Your task to perform on an android device: Go to settings Image 0: 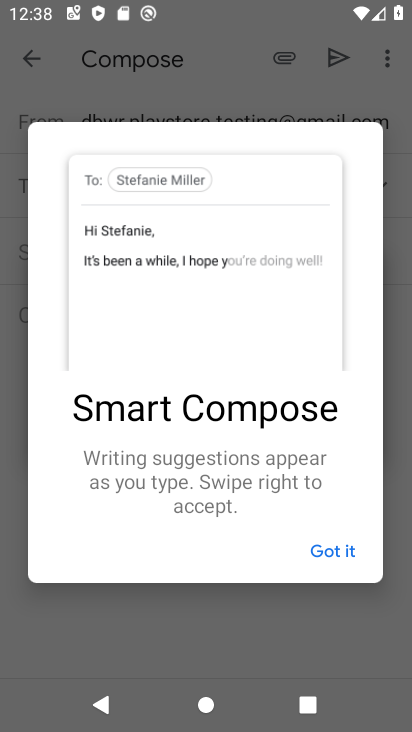
Step 0: press home button
Your task to perform on an android device: Go to settings Image 1: 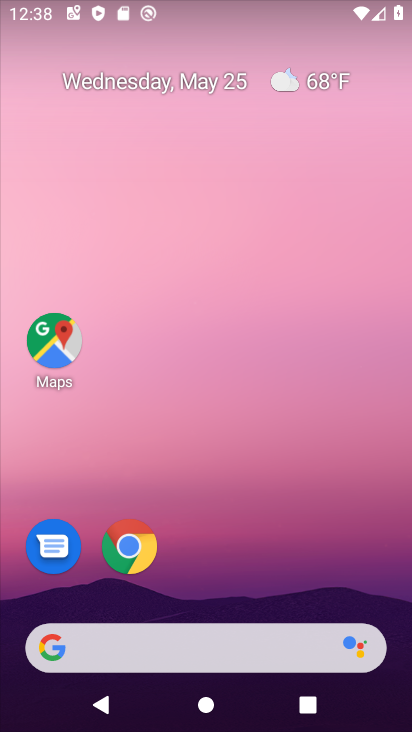
Step 1: drag from (295, 559) to (275, 121)
Your task to perform on an android device: Go to settings Image 2: 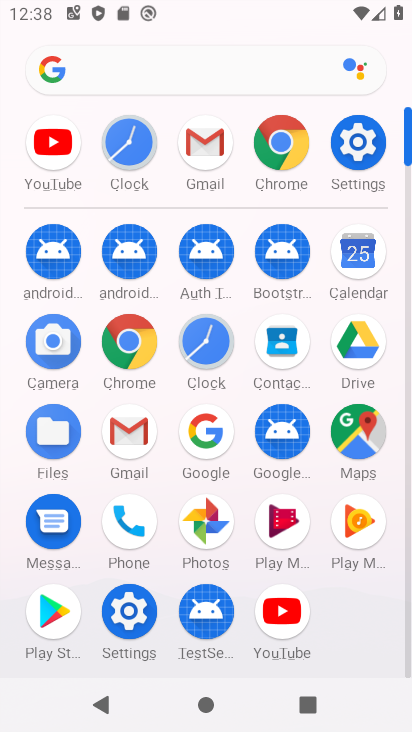
Step 2: click (359, 177)
Your task to perform on an android device: Go to settings Image 3: 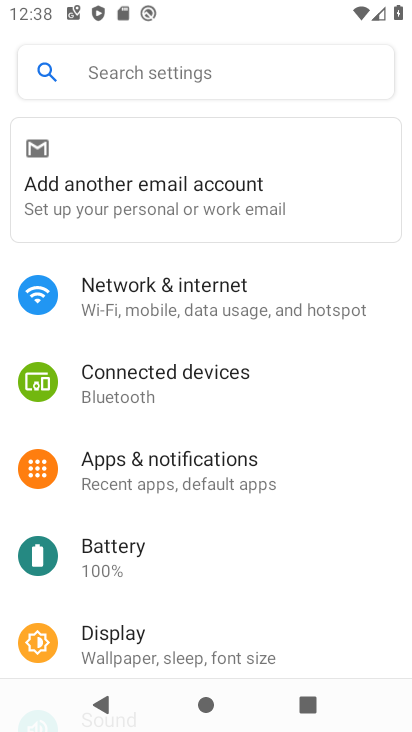
Step 3: task complete